Your task to perform on an android device: turn off picture-in-picture Image 0: 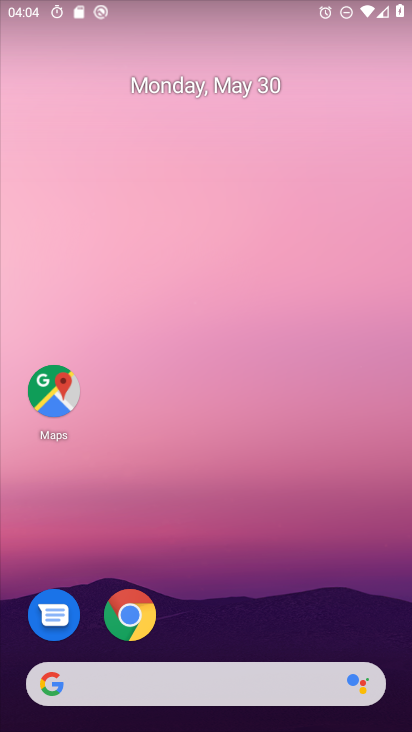
Step 0: click (131, 613)
Your task to perform on an android device: turn off picture-in-picture Image 1: 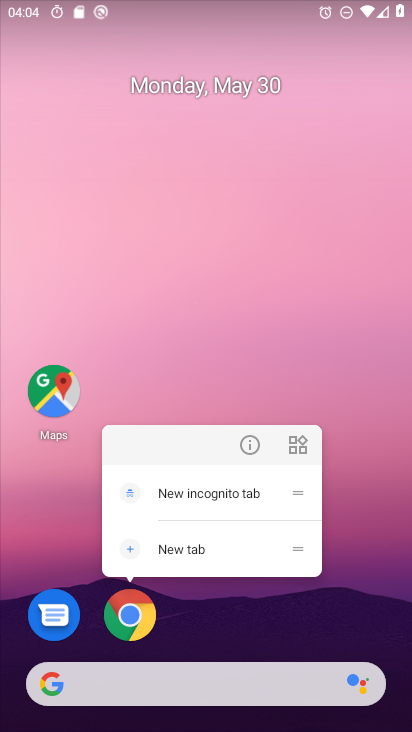
Step 1: click (252, 445)
Your task to perform on an android device: turn off picture-in-picture Image 2: 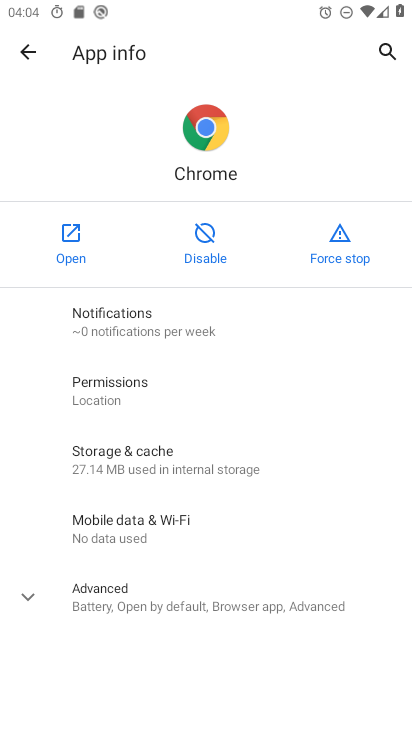
Step 2: drag from (181, 549) to (228, 334)
Your task to perform on an android device: turn off picture-in-picture Image 3: 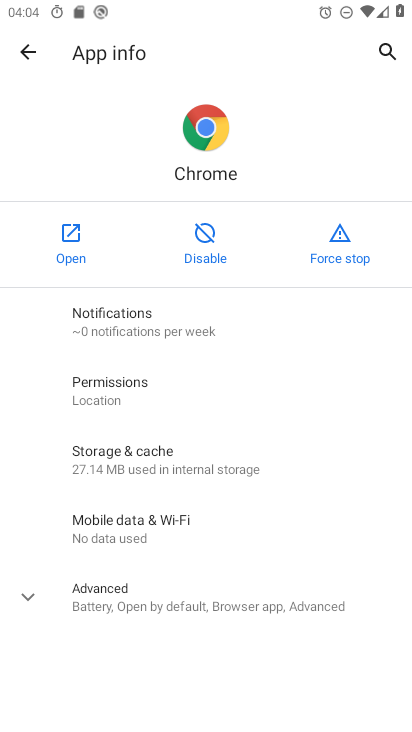
Step 3: click (182, 602)
Your task to perform on an android device: turn off picture-in-picture Image 4: 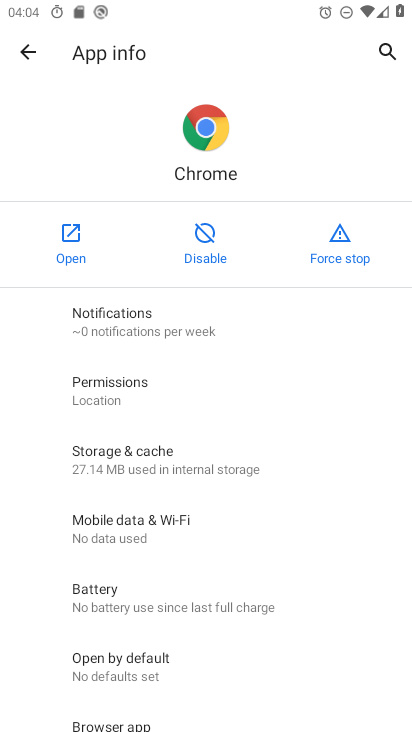
Step 4: drag from (191, 640) to (261, 529)
Your task to perform on an android device: turn off picture-in-picture Image 5: 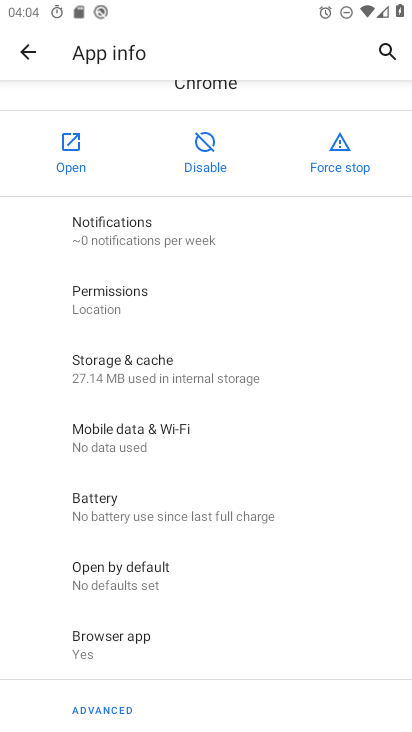
Step 5: drag from (188, 640) to (244, 479)
Your task to perform on an android device: turn off picture-in-picture Image 6: 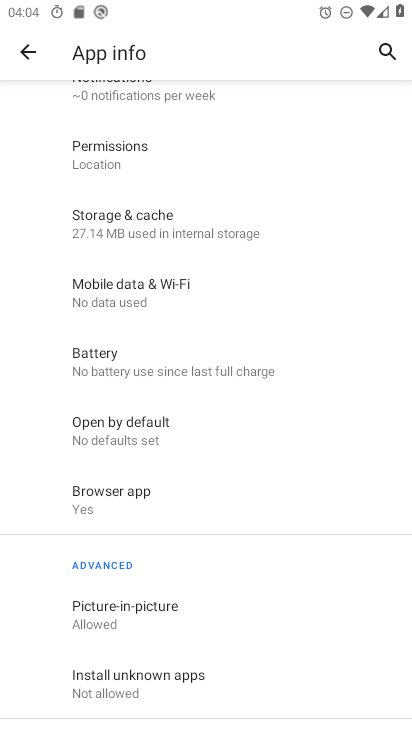
Step 6: click (177, 615)
Your task to perform on an android device: turn off picture-in-picture Image 7: 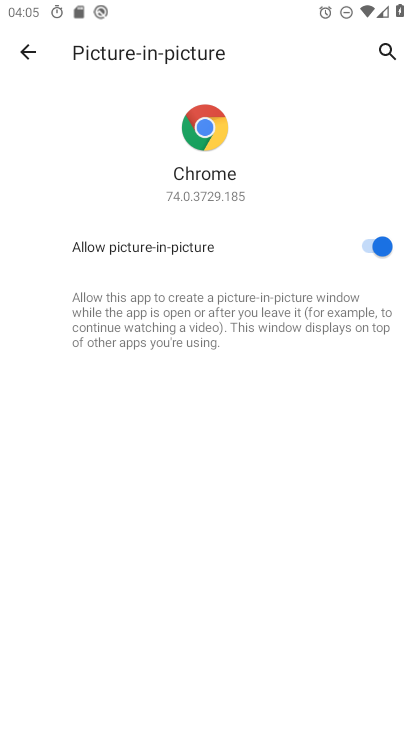
Step 7: click (380, 249)
Your task to perform on an android device: turn off picture-in-picture Image 8: 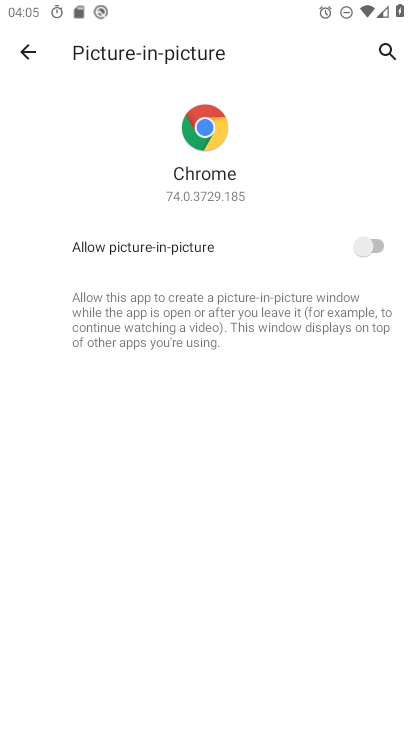
Step 8: task complete